Your task to perform on an android device: snooze an email in the gmail app Image 0: 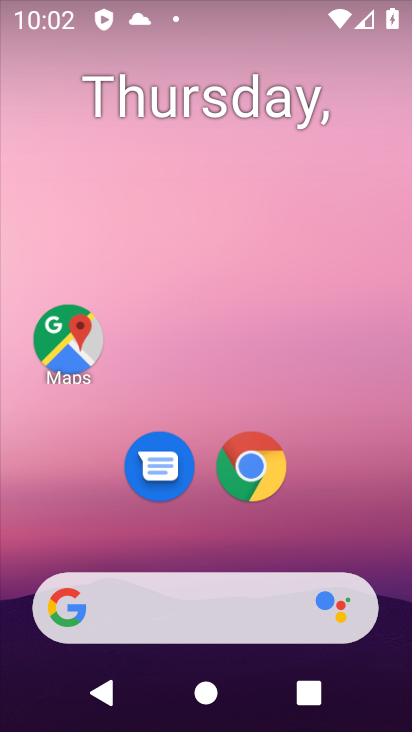
Step 0: drag from (274, 567) to (327, 167)
Your task to perform on an android device: snooze an email in the gmail app Image 1: 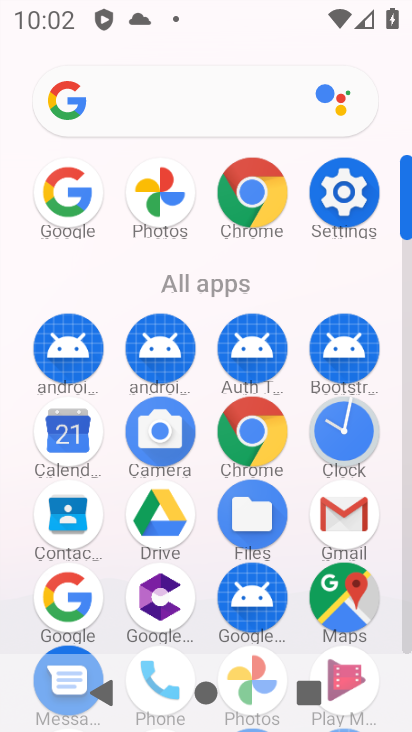
Step 1: click (348, 529)
Your task to perform on an android device: snooze an email in the gmail app Image 2: 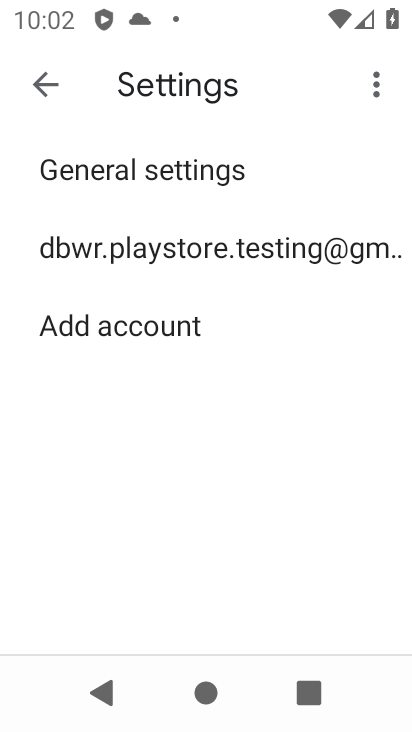
Step 2: click (43, 88)
Your task to perform on an android device: snooze an email in the gmail app Image 3: 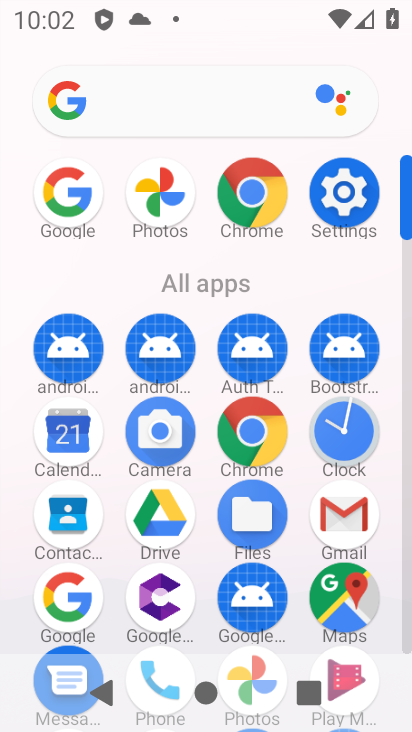
Step 3: click (357, 509)
Your task to perform on an android device: snooze an email in the gmail app Image 4: 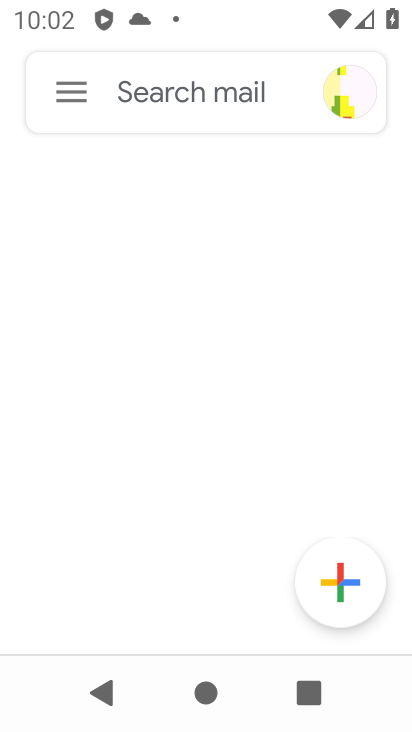
Step 4: click (76, 97)
Your task to perform on an android device: snooze an email in the gmail app Image 5: 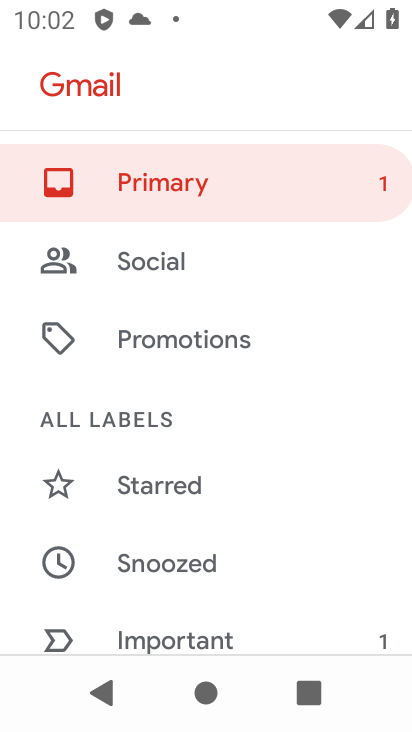
Step 5: drag from (299, 549) to (254, 136)
Your task to perform on an android device: snooze an email in the gmail app Image 6: 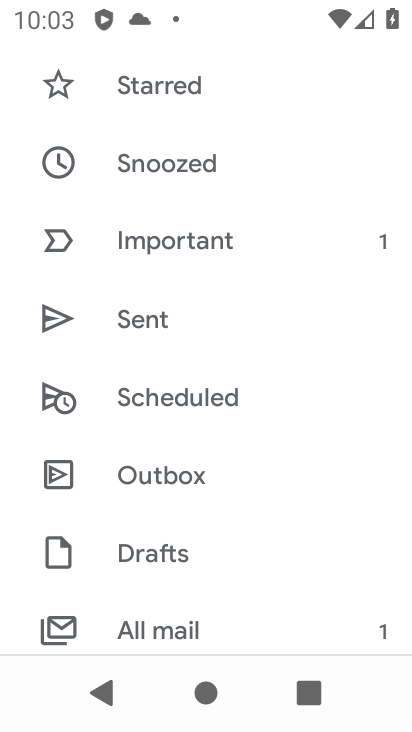
Step 6: click (220, 617)
Your task to perform on an android device: snooze an email in the gmail app Image 7: 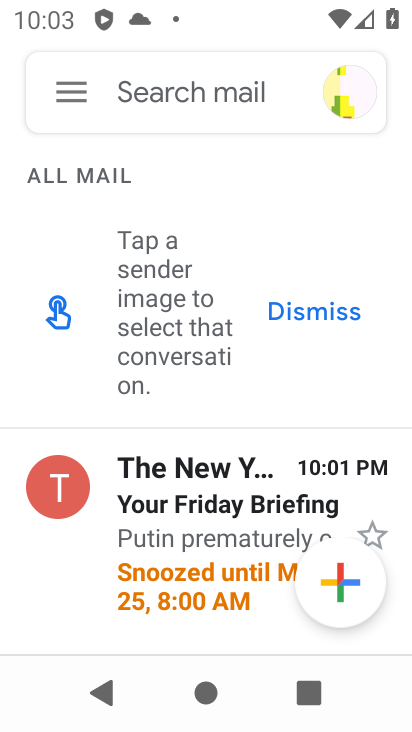
Step 7: click (237, 497)
Your task to perform on an android device: snooze an email in the gmail app Image 8: 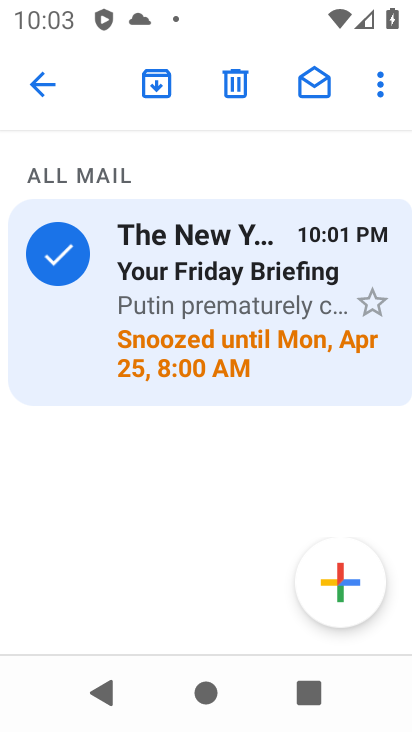
Step 8: click (379, 81)
Your task to perform on an android device: snooze an email in the gmail app Image 9: 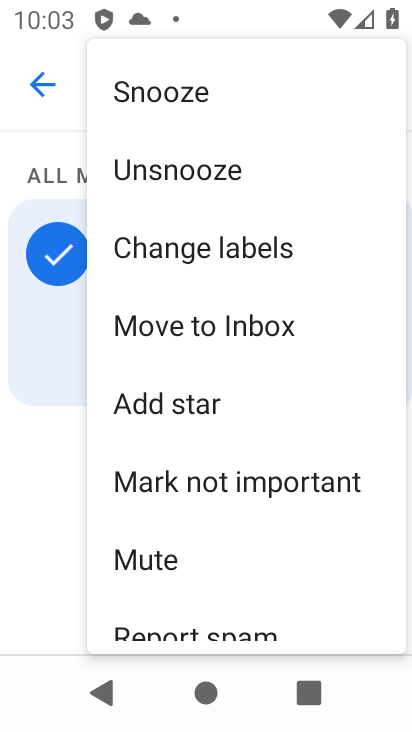
Step 9: click (219, 110)
Your task to perform on an android device: snooze an email in the gmail app Image 10: 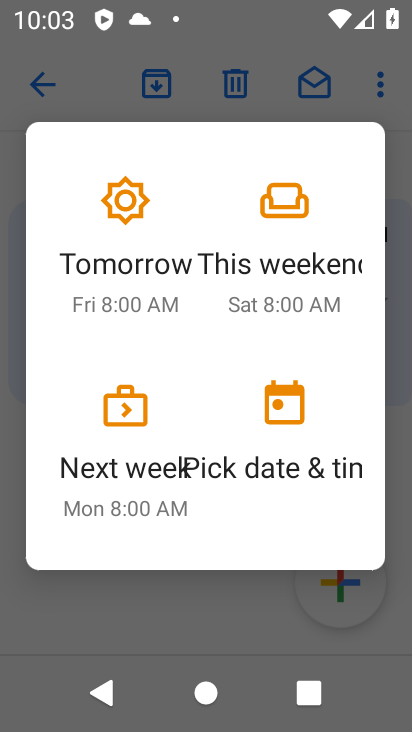
Step 10: click (159, 233)
Your task to perform on an android device: snooze an email in the gmail app Image 11: 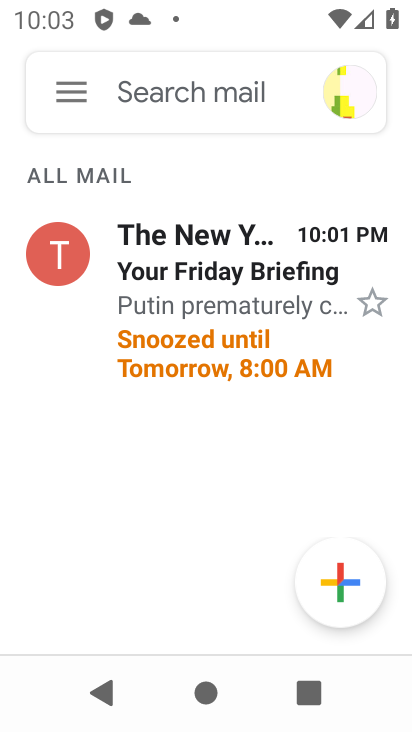
Step 11: task complete